Your task to perform on an android device: Is it going to rain this weekend? Image 0: 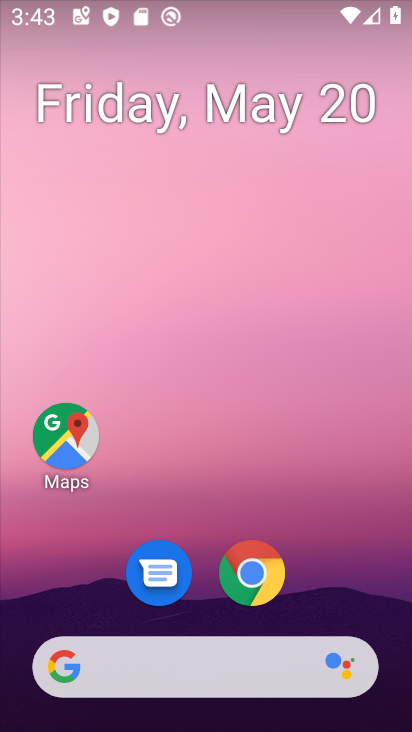
Step 0: drag from (6, 171) to (408, 213)
Your task to perform on an android device: Is it going to rain this weekend? Image 1: 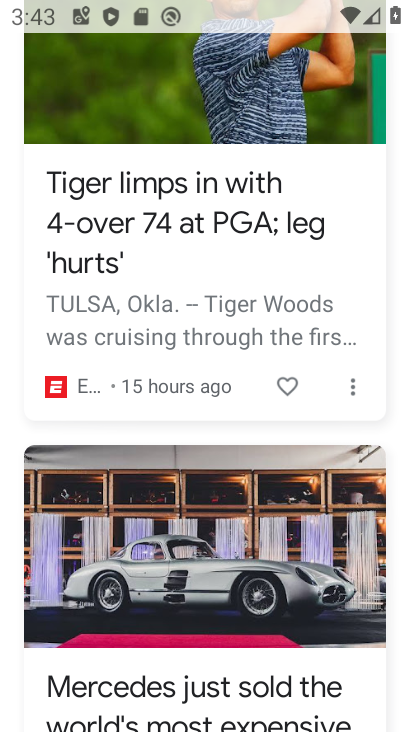
Step 1: drag from (217, 110) to (195, 489)
Your task to perform on an android device: Is it going to rain this weekend? Image 2: 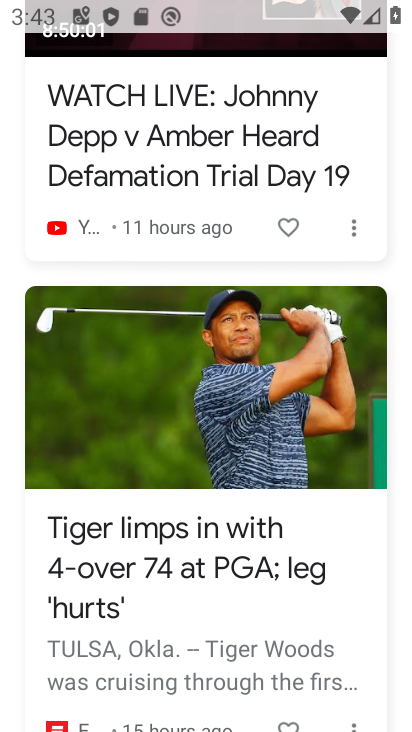
Step 2: drag from (216, 231) to (234, 619)
Your task to perform on an android device: Is it going to rain this weekend? Image 3: 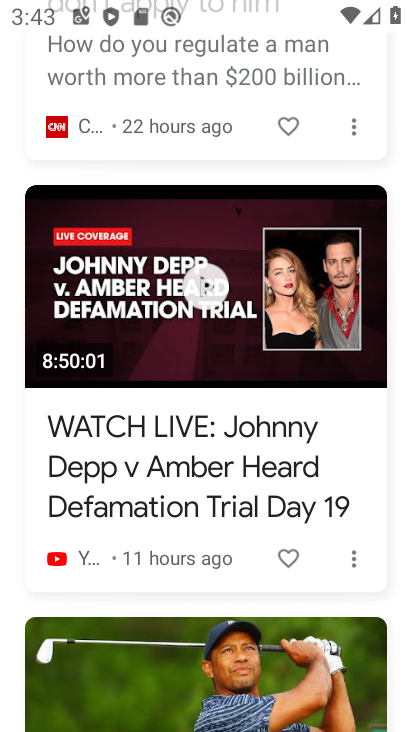
Step 3: drag from (237, 110) to (247, 574)
Your task to perform on an android device: Is it going to rain this weekend? Image 4: 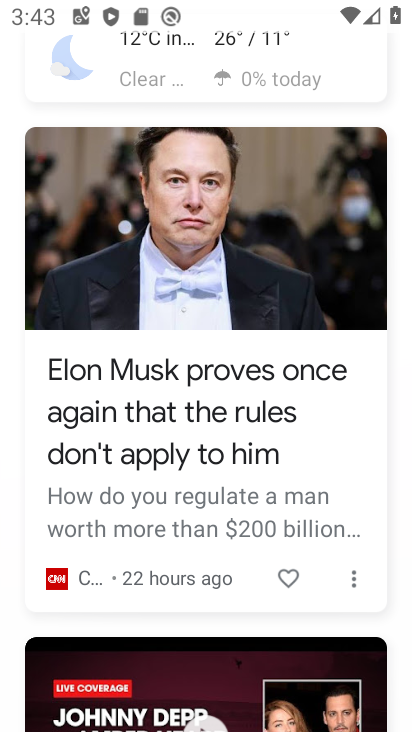
Step 4: drag from (262, 118) to (255, 500)
Your task to perform on an android device: Is it going to rain this weekend? Image 5: 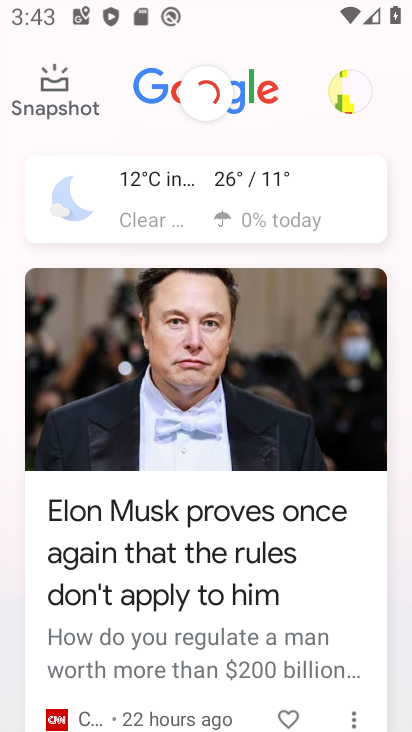
Step 5: click (260, 182)
Your task to perform on an android device: Is it going to rain this weekend? Image 6: 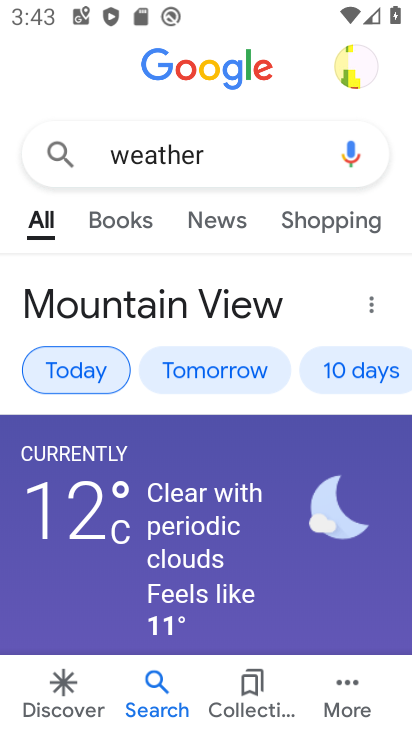
Step 6: click (362, 364)
Your task to perform on an android device: Is it going to rain this weekend? Image 7: 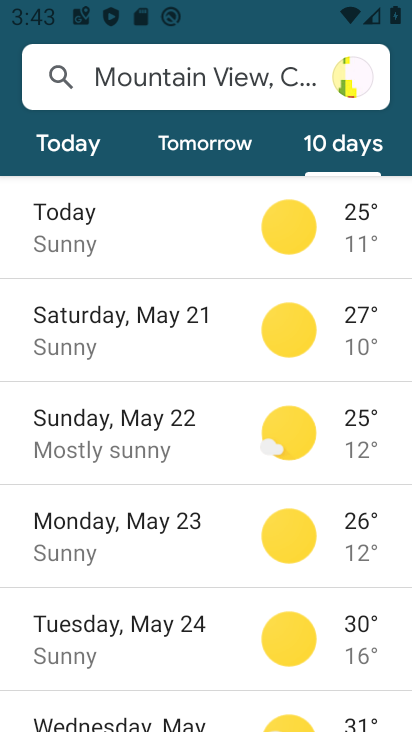
Step 7: task complete